Your task to perform on an android device: delete a single message in the gmail app Image 0: 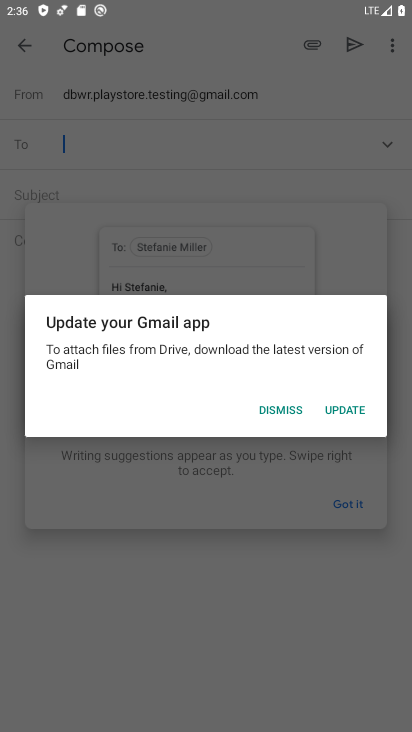
Step 0: press home button
Your task to perform on an android device: delete a single message in the gmail app Image 1: 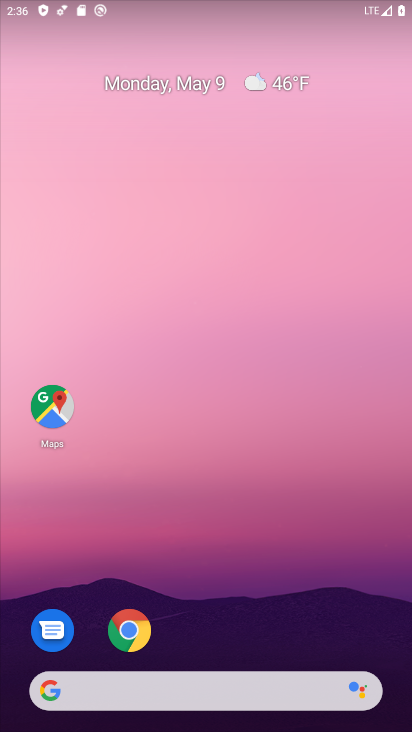
Step 1: drag from (259, 611) to (316, 26)
Your task to perform on an android device: delete a single message in the gmail app Image 2: 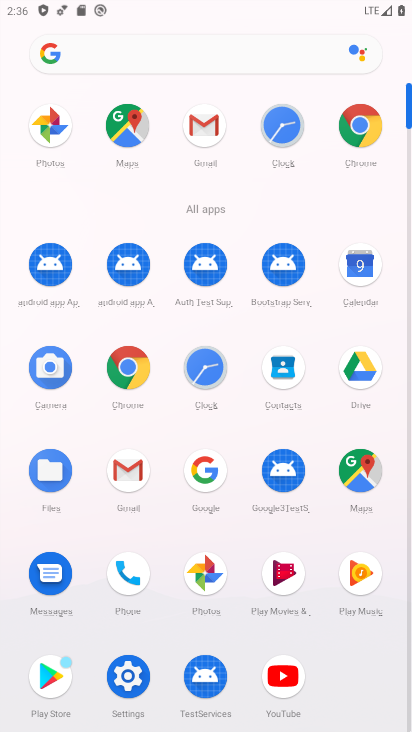
Step 2: click (117, 470)
Your task to perform on an android device: delete a single message in the gmail app Image 3: 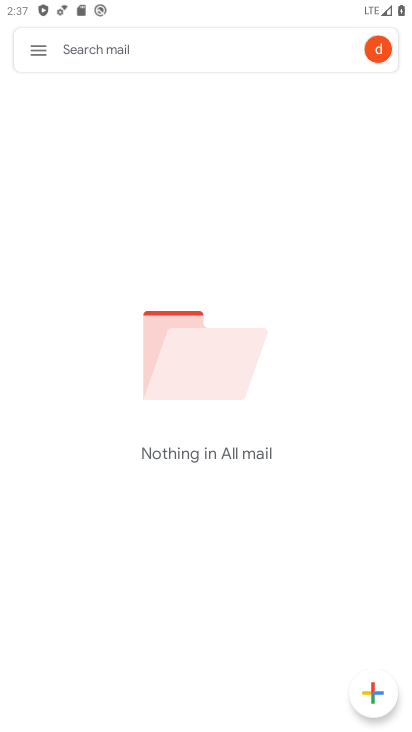
Step 3: task complete